Your task to perform on an android device: change your default location settings in chrome Image 0: 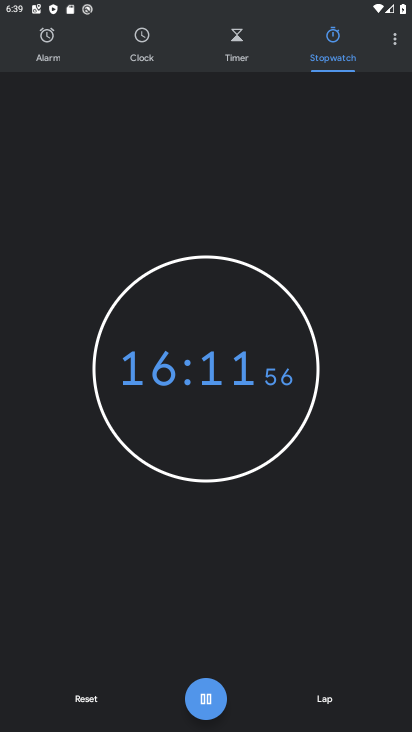
Step 0: press home button
Your task to perform on an android device: change your default location settings in chrome Image 1: 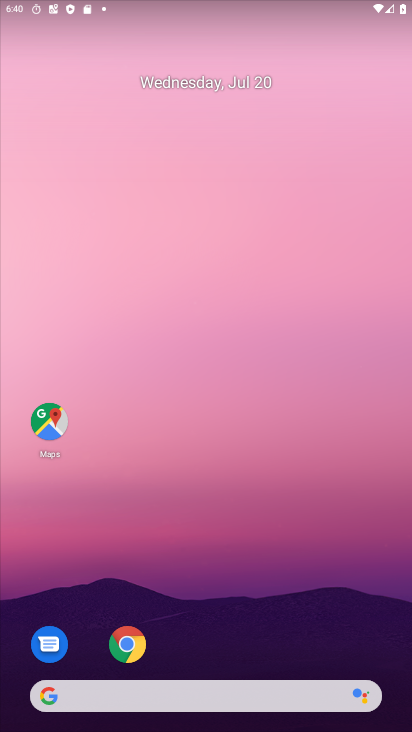
Step 1: drag from (229, 664) to (254, 118)
Your task to perform on an android device: change your default location settings in chrome Image 2: 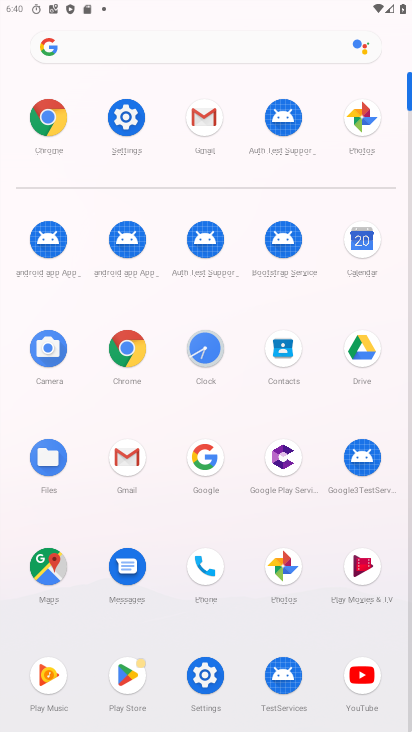
Step 2: click (47, 120)
Your task to perform on an android device: change your default location settings in chrome Image 3: 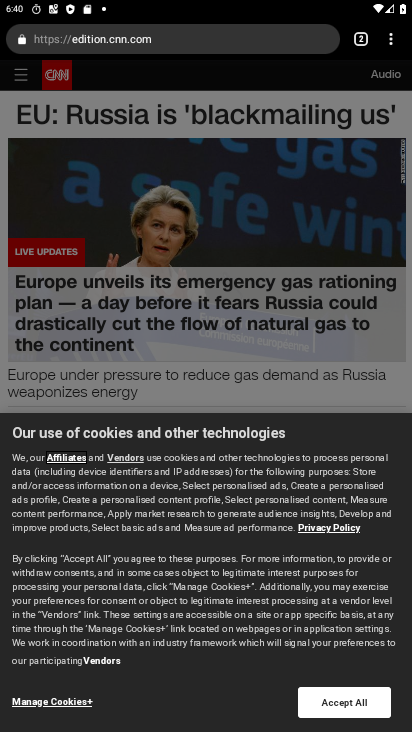
Step 3: drag from (383, 39) to (255, 441)
Your task to perform on an android device: change your default location settings in chrome Image 4: 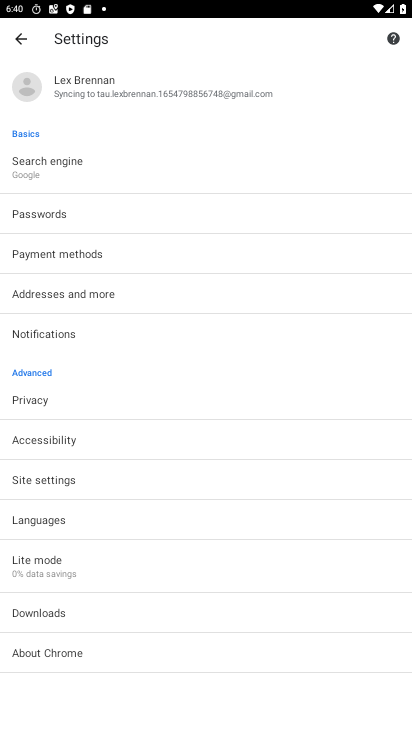
Step 4: click (52, 483)
Your task to perform on an android device: change your default location settings in chrome Image 5: 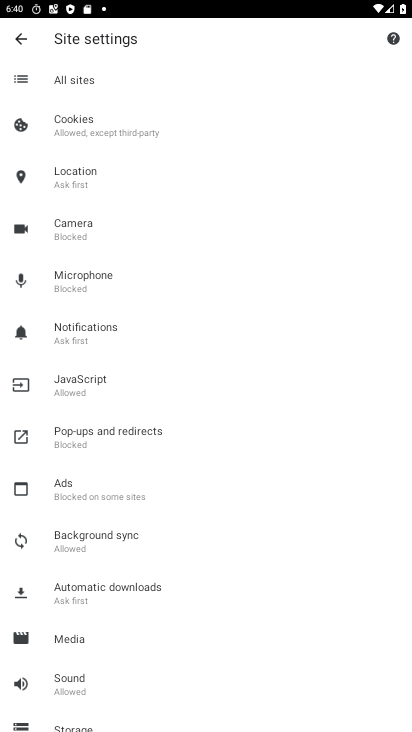
Step 5: click (73, 175)
Your task to perform on an android device: change your default location settings in chrome Image 6: 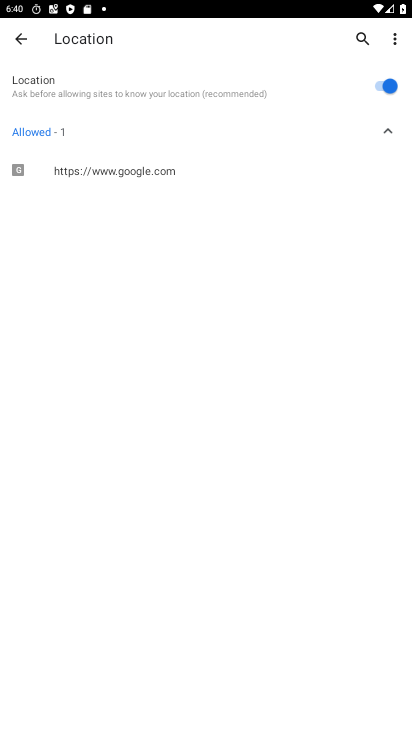
Step 6: click (386, 85)
Your task to perform on an android device: change your default location settings in chrome Image 7: 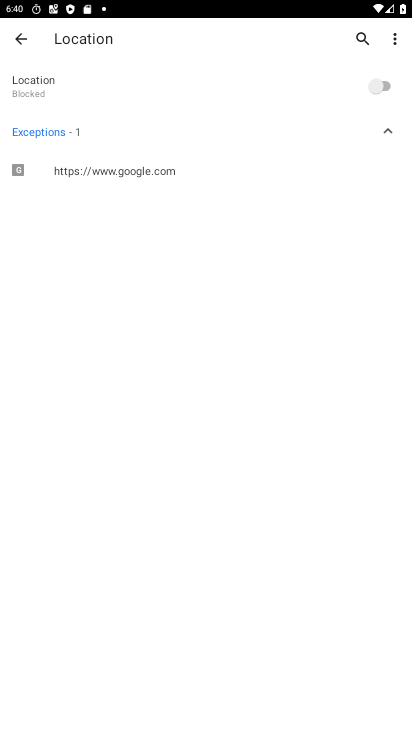
Step 7: task complete